Your task to perform on an android device: empty trash in the gmail app Image 0: 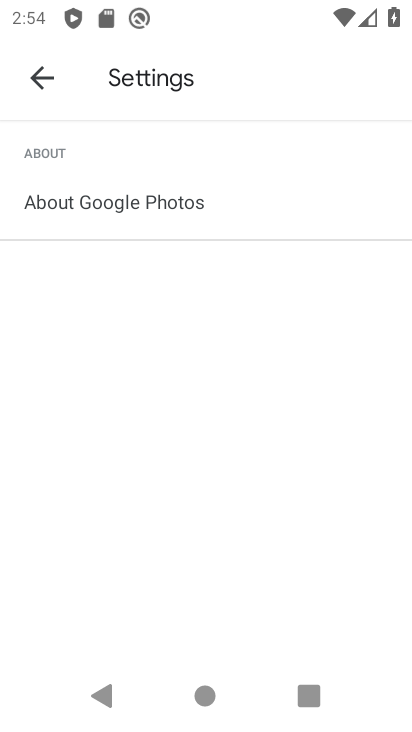
Step 0: press home button
Your task to perform on an android device: empty trash in the gmail app Image 1: 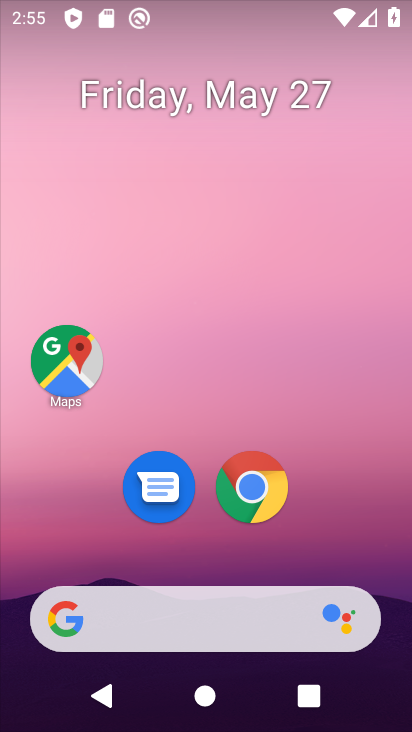
Step 1: drag from (164, 727) to (176, 139)
Your task to perform on an android device: empty trash in the gmail app Image 2: 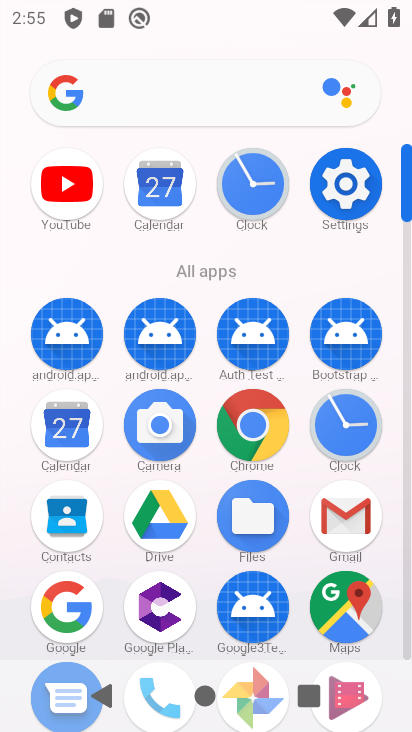
Step 2: click (349, 525)
Your task to perform on an android device: empty trash in the gmail app Image 3: 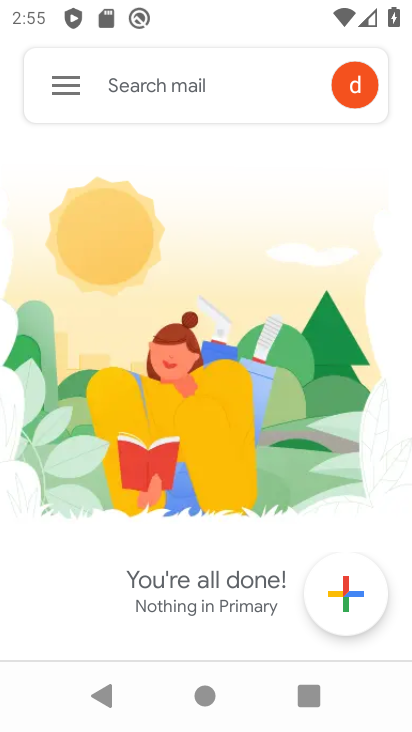
Step 3: click (68, 89)
Your task to perform on an android device: empty trash in the gmail app Image 4: 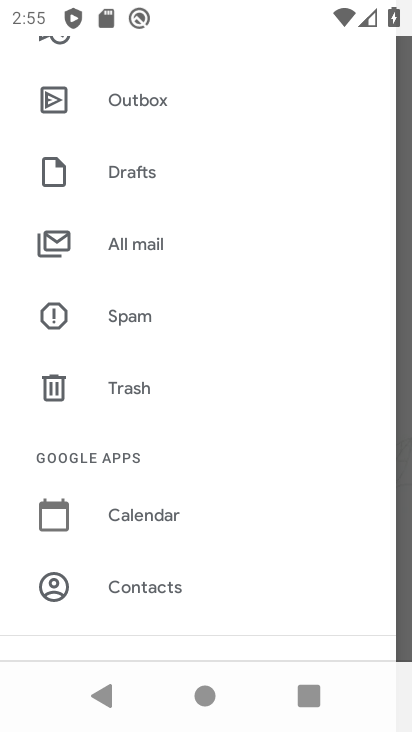
Step 4: click (121, 398)
Your task to perform on an android device: empty trash in the gmail app Image 5: 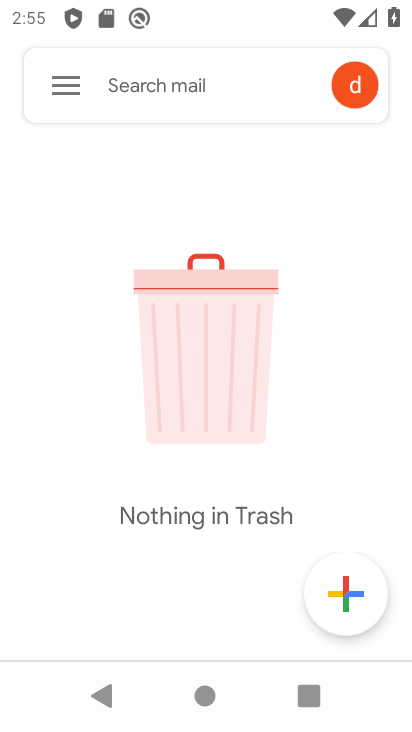
Step 5: task complete